Your task to perform on an android device: delete location history Image 0: 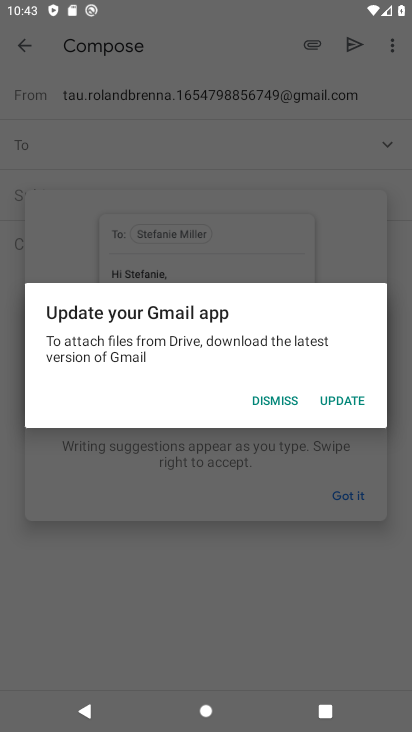
Step 0: press home button
Your task to perform on an android device: delete location history Image 1: 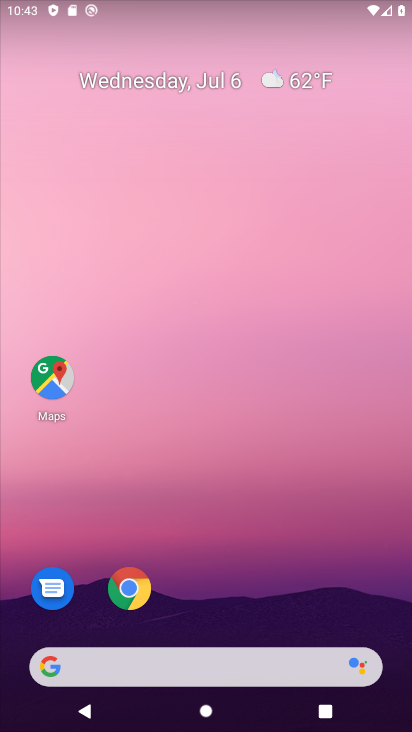
Step 1: click (54, 376)
Your task to perform on an android device: delete location history Image 2: 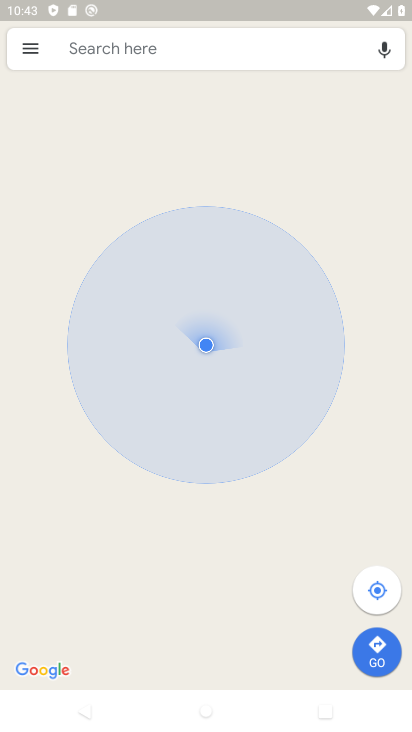
Step 2: click (32, 48)
Your task to perform on an android device: delete location history Image 3: 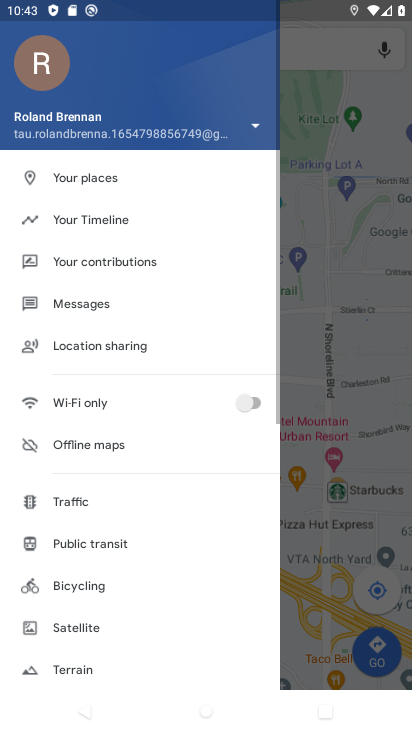
Step 3: drag from (145, 671) to (168, 327)
Your task to perform on an android device: delete location history Image 4: 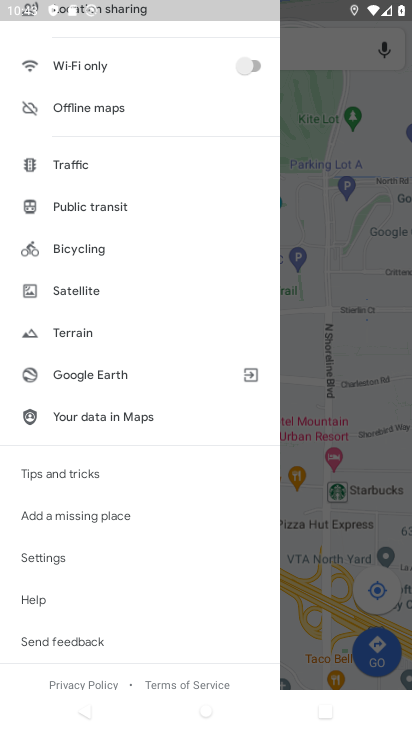
Step 4: click (42, 559)
Your task to perform on an android device: delete location history Image 5: 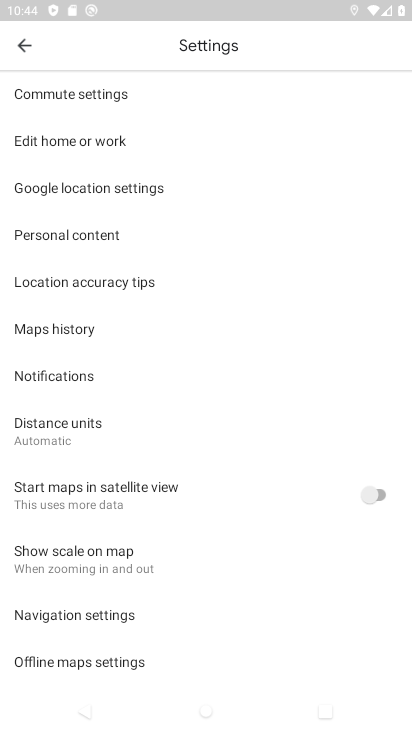
Step 5: click (64, 232)
Your task to perform on an android device: delete location history Image 6: 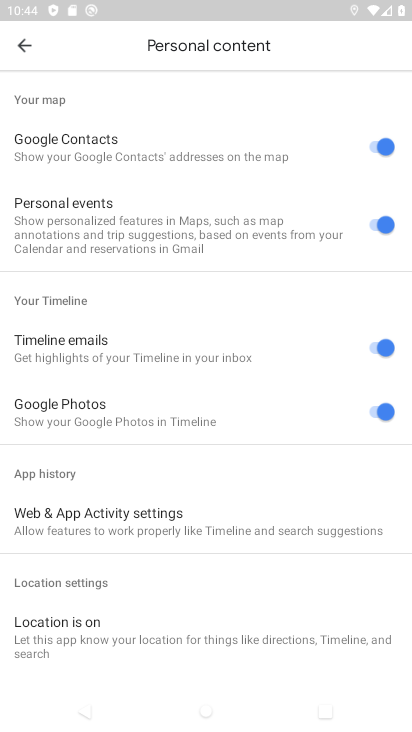
Step 6: drag from (250, 606) to (232, 255)
Your task to perform on an android device: delete location history Image 7: 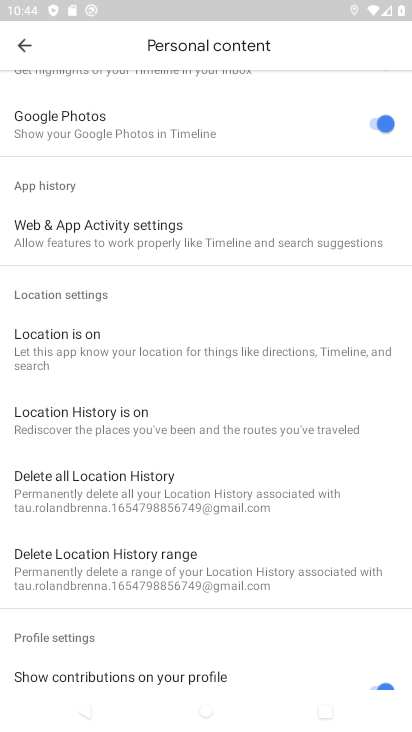
Step 7: click (83, 499)
Your task to perform on an android device: delete location history Image 8: 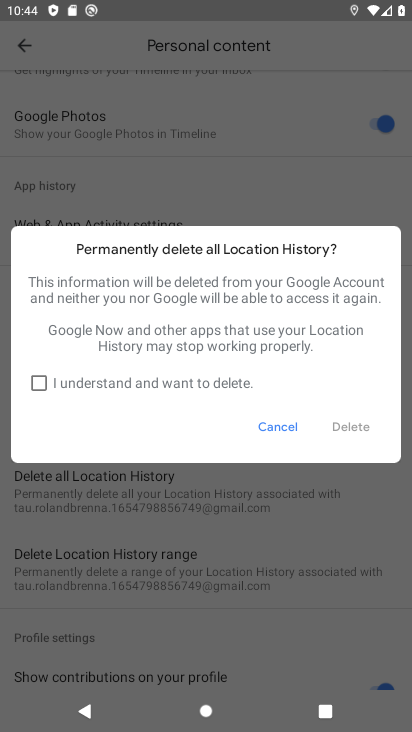
Step 8: click (41, 386)
Your task to perform on an android device: delete location history Image 9: 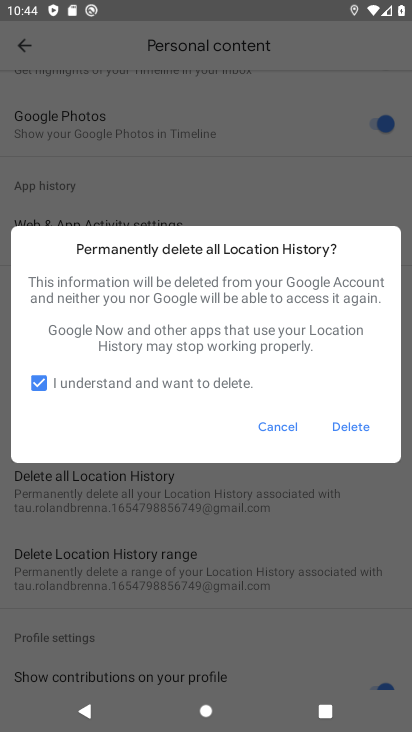
Step 9: click (356, 428)
Your task to perform on an android device: delete location history Image 10: 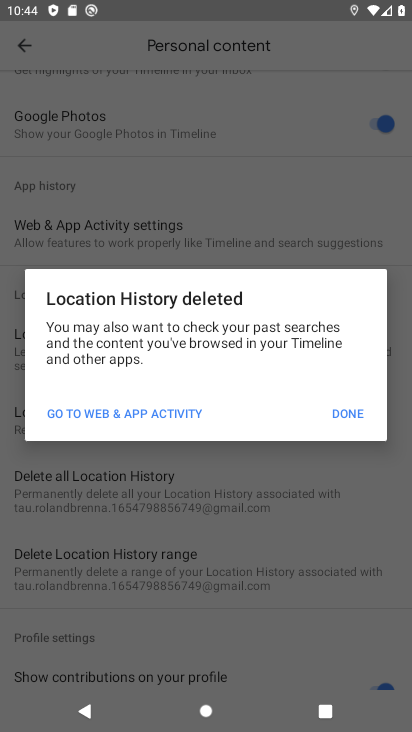
Step 10: click (346, 411)
Your task to perform on an android device: delete location history Image 11: 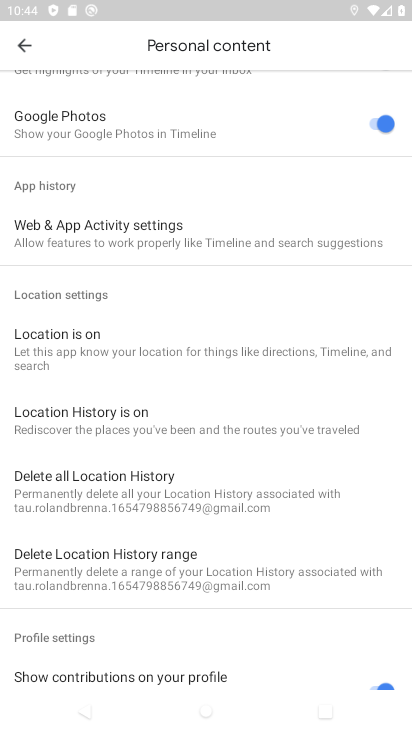
Step 11: task complete